Your task to perform on an android device: Check the news Image 0: 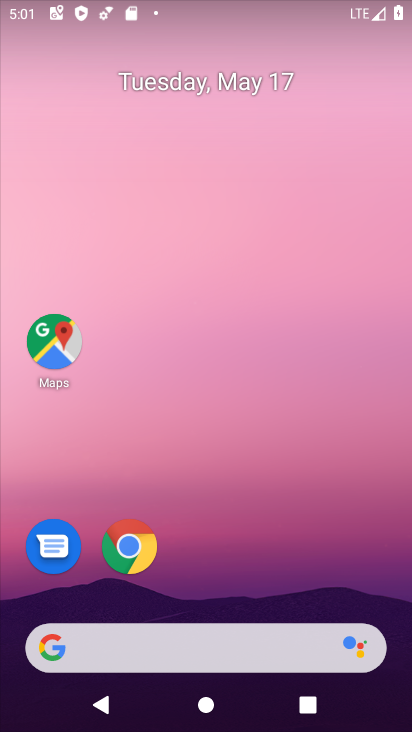
Step 0: drag from (238, 601) to (252, 74)
Your task to perform on an android device: Check the news Image 1: 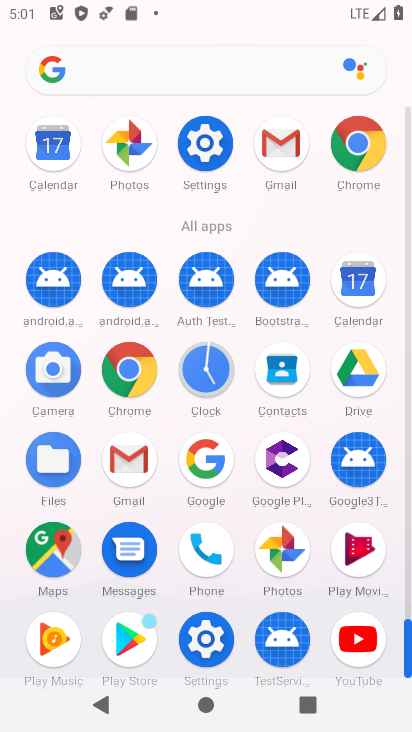
Step 1: click (211, 474)
Your task to perform on an android device: Check the news Image 2: 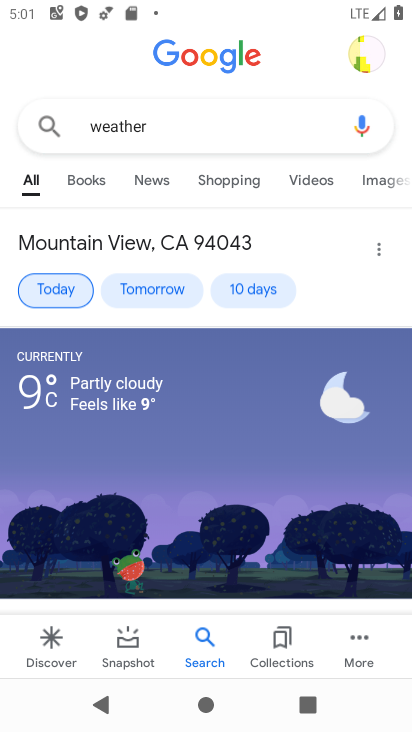
Step 2: click (220, 142)
Your task to perform on an android device: Check the news Image 3: 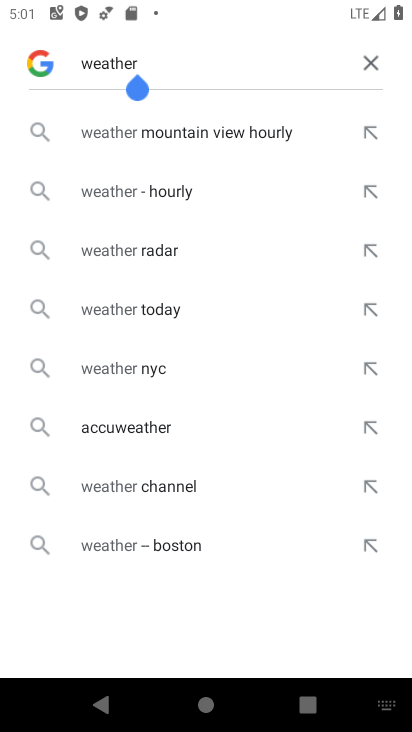
Step 3: click (376, 58)
Your task to perform on an android device: Check the news Image 4: 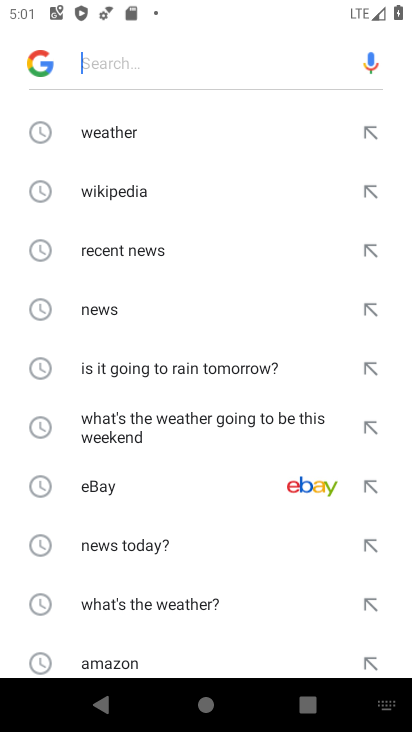
Step 4: click (101, 313)
Your task to perform on an android device: Check the news Image 5: 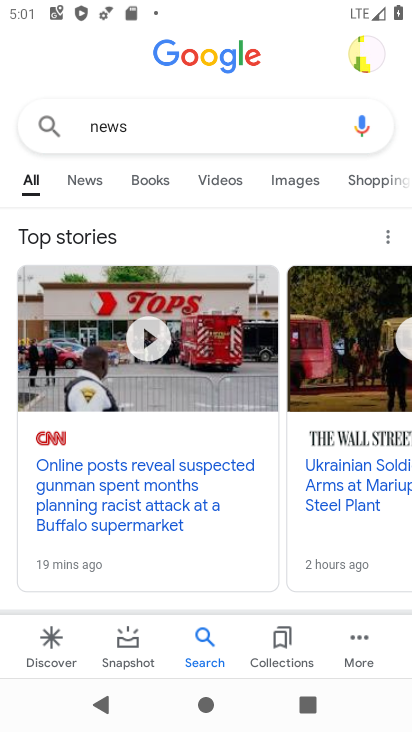
Step 5: task complete